Your task to perform on an android device: Open Google Image 0: 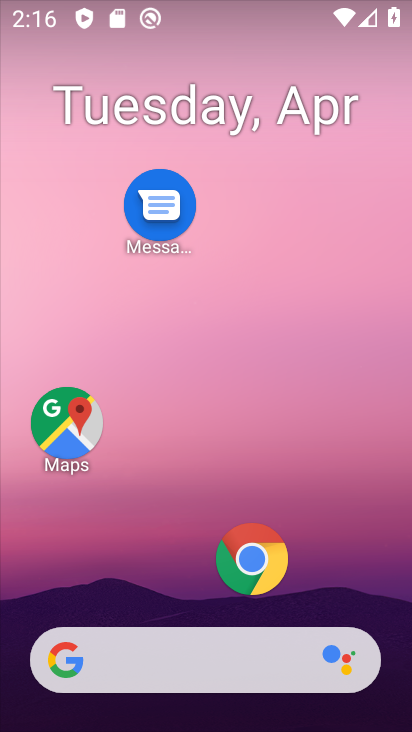
Step 0: drag from (164, 585) to (164, 193)
Your task to perform on an android device: Open Google Image 1: 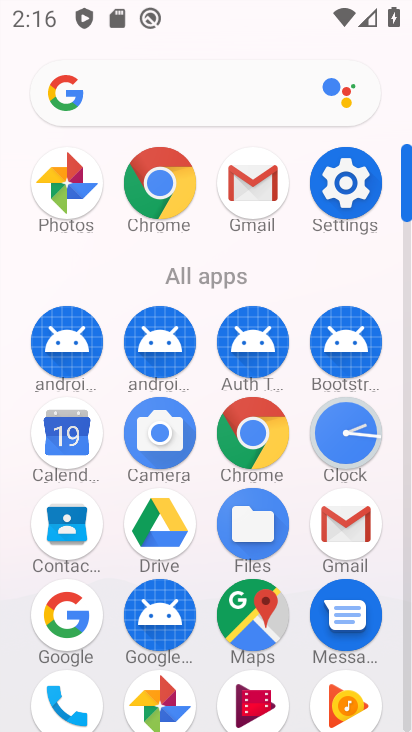
Step 1: click (86, 620)
Your task to perform on an android device: Open Google Image 2: 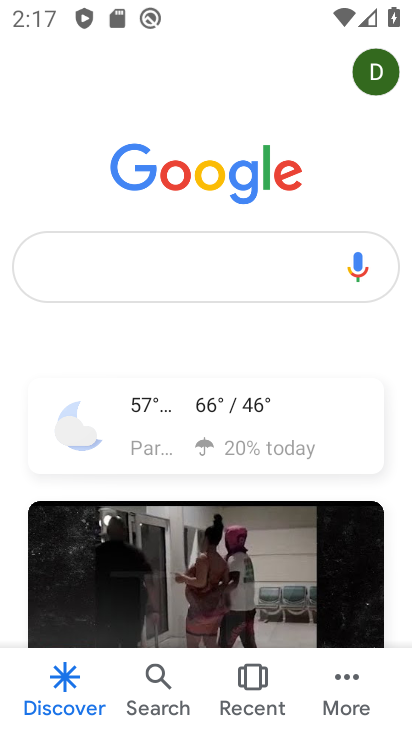
Step 2: task complete